Your task to perform on an android device: Go to accessibility settings Image 0: 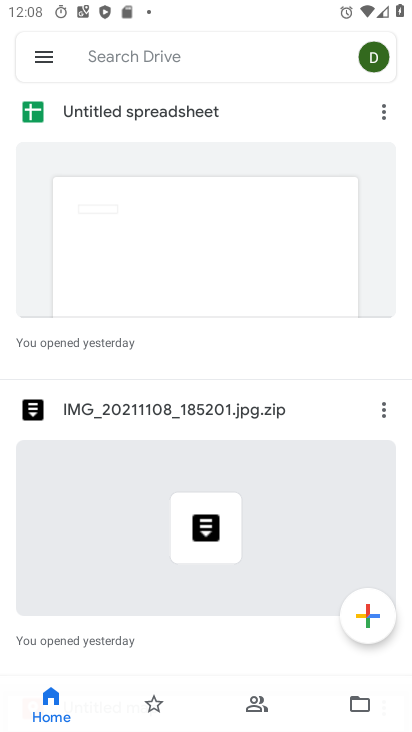
Step 0: press home button
Your task to perform on an android device: Go to accessibility settings Image 1: 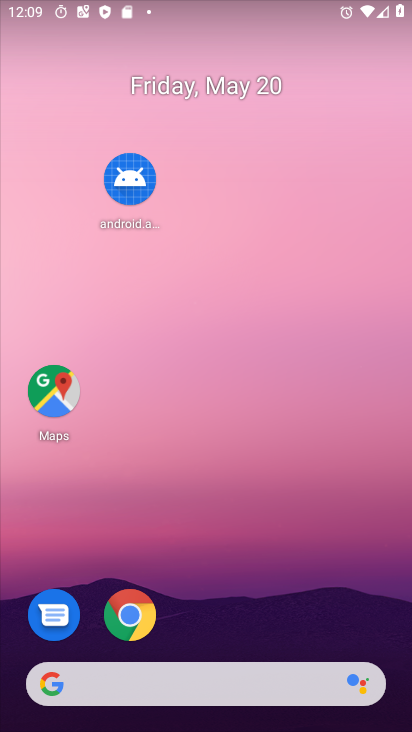
Step 1: drag from (331, 583) to (272, 213)
Your task to perform on an android device: Go to accessibility settings Image 2: 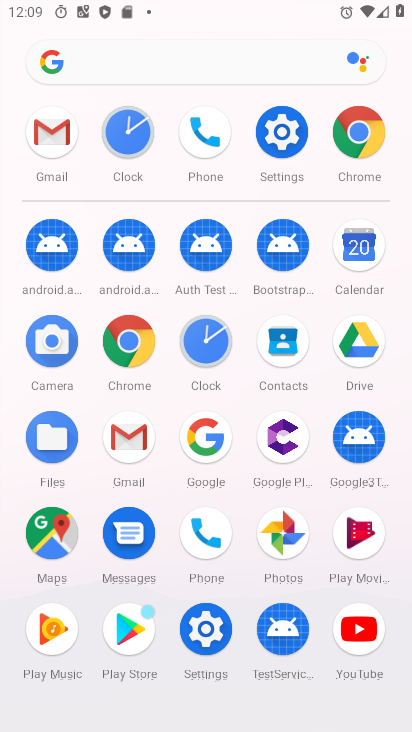
Step 2: click (271, 142)
Your task to perform on an android device: Go to accessibility settings Image 3: 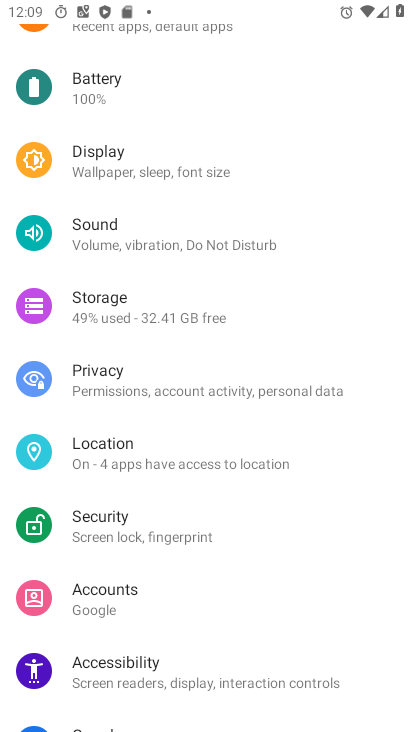
Step 3: click (161, 667)
Your task to perform on an android device: Go to accessibility settings Image 4: 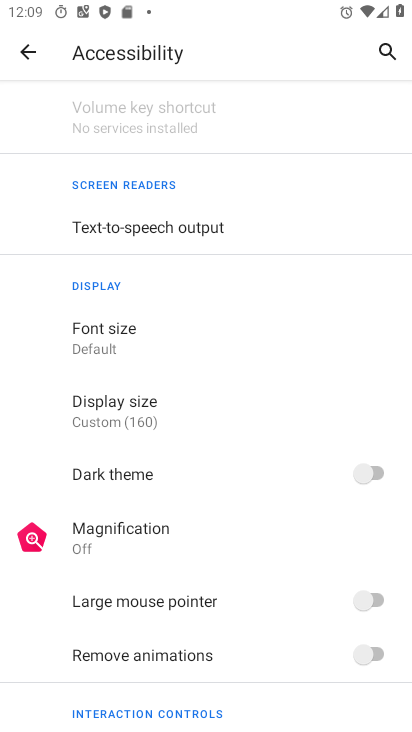
Step 4: task complete